Your task to perform on an android device: manage bookmarks in the chrome app Image 0: 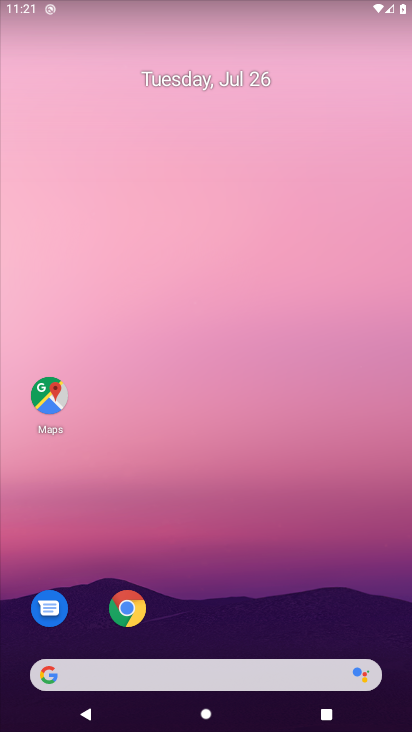
Step 0: click (125, 609)
Your task to perform on an android device: manage bookmarks in the chrome app Image 1: 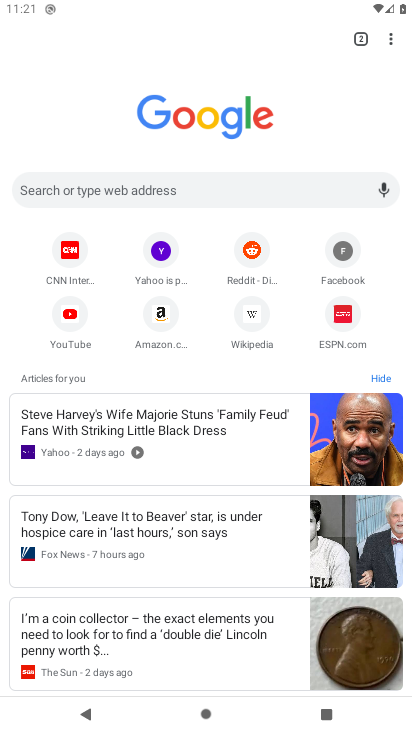
Step 1: task complete